Your task to perform on an android device: Open Yahoo.com Image 0: 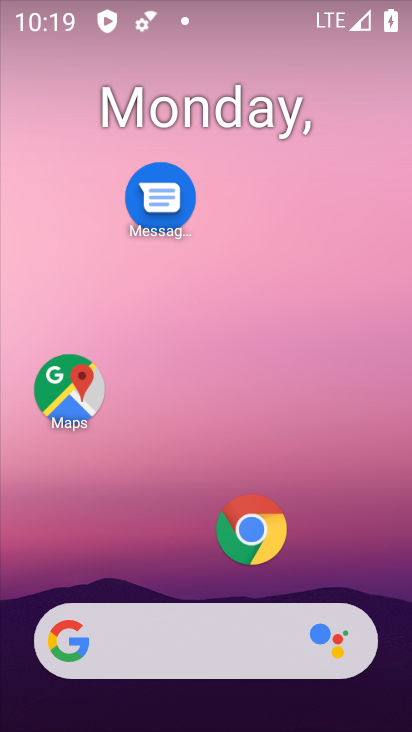
Step 0: drag from (195, 563) to (243, 212)
Your task to perform on an android device: Open Yahoo.com Image 1: 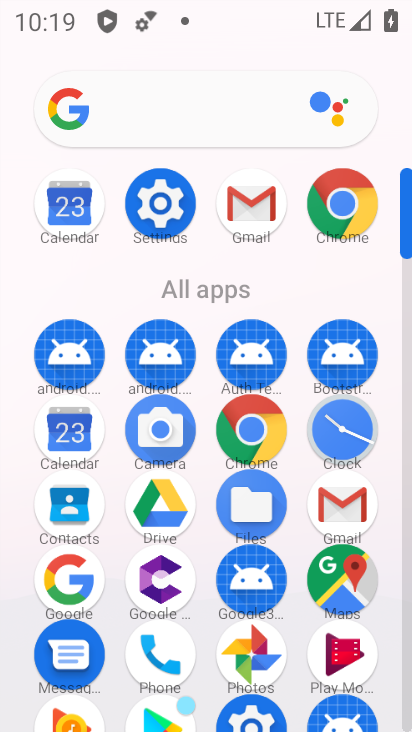
Step 1: click (251, 446)
Your task to perform on an android device: Open Yahoo.com Image 2: 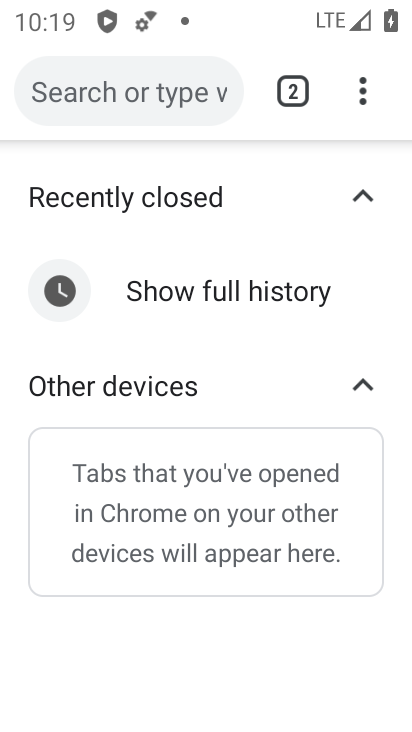
Step 2: click (300, 87)
Your task to perform on an android device: Open Yahoo.com Image 3: 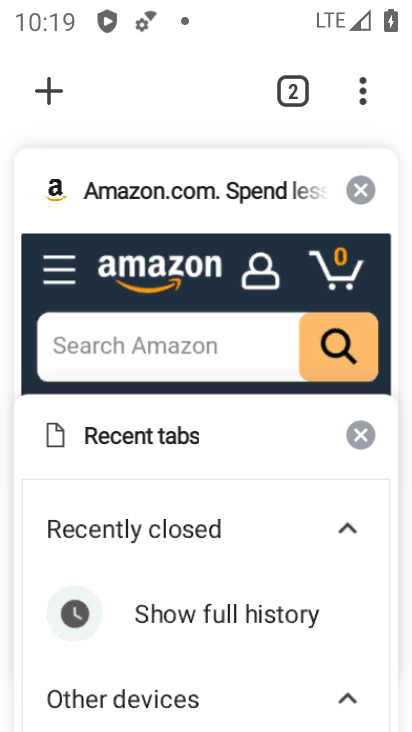
Step 3: click (48, 85)
Your task to perform on an android device: Open Yahoo.com Image 4: 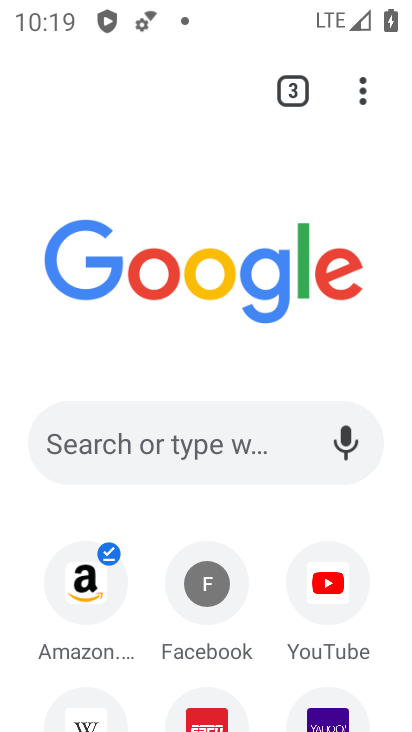
Step 4: drag from (307, 684) to (292, 443)
Your task to perform on an android device: Open Yahoo.com Image 5: 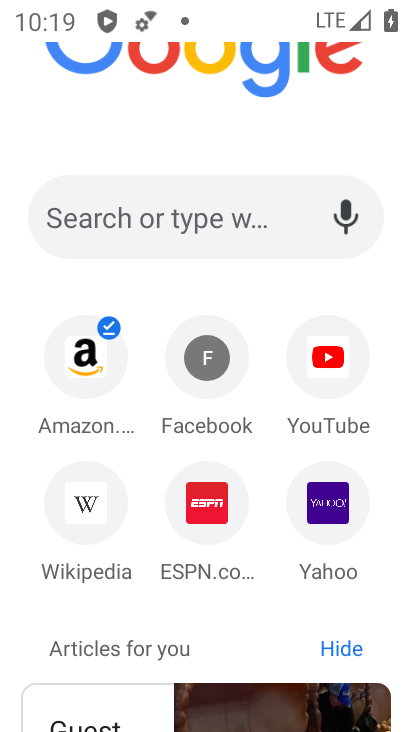
Step 5: click (330, 526)
Your task to perform on an android device: Open Yahoo.com Image 6: 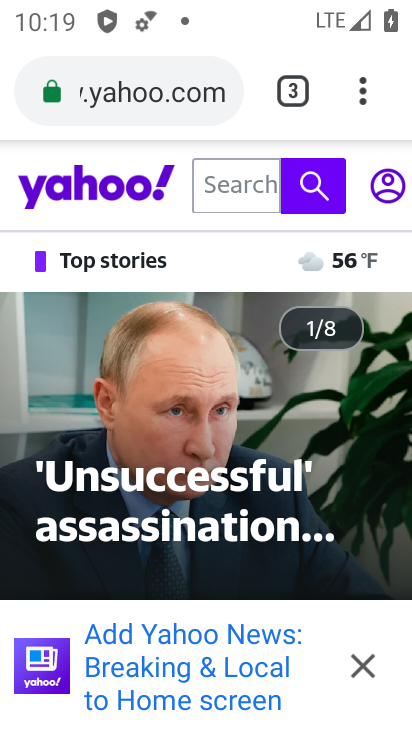
Step 6: drag from (314, 547) to (289, 245)
Your task to perform on an android device: Open Yahoo.com Image 7: 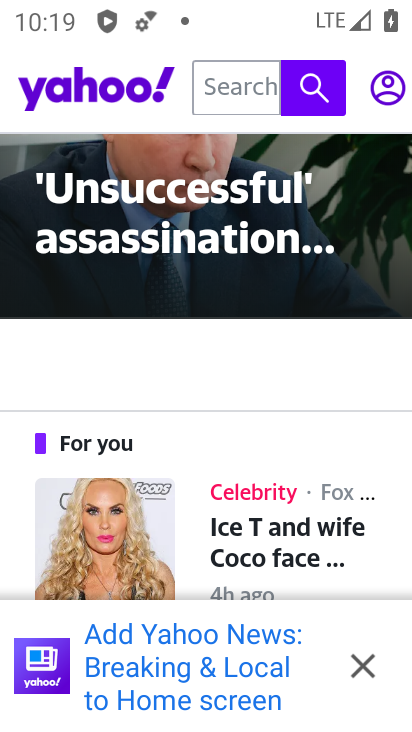
Step 7: click (362, 663)
Your task to perform on an android device: Open Yahoo.com Image 8: 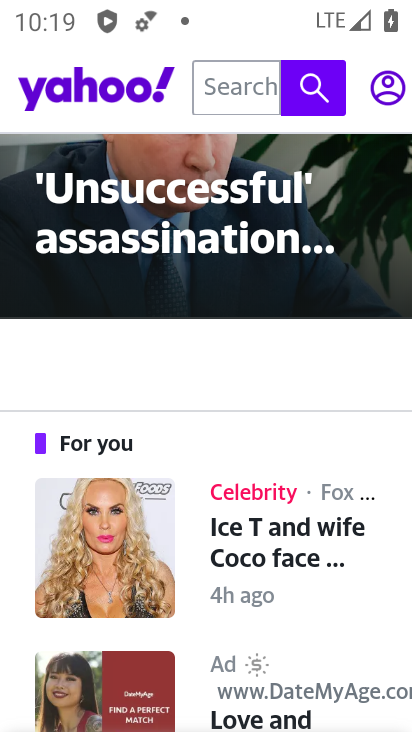
Step 8: task complete